Your task to perform on an android device: Go to Amazon Image 0: 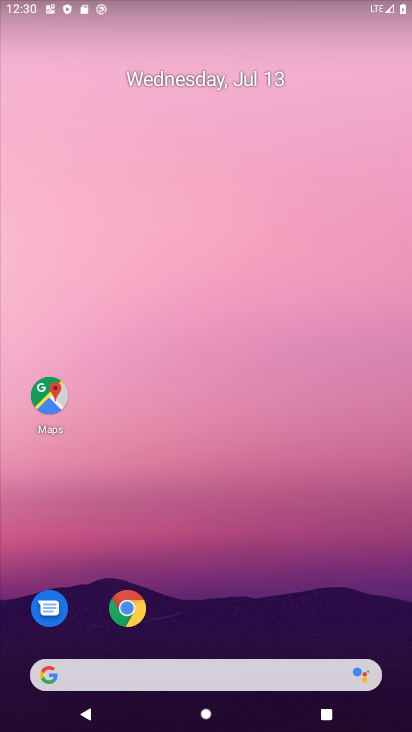
Step 0: click (123, 600)
Your task to perform on an android device: Go to Amazon Image 1: 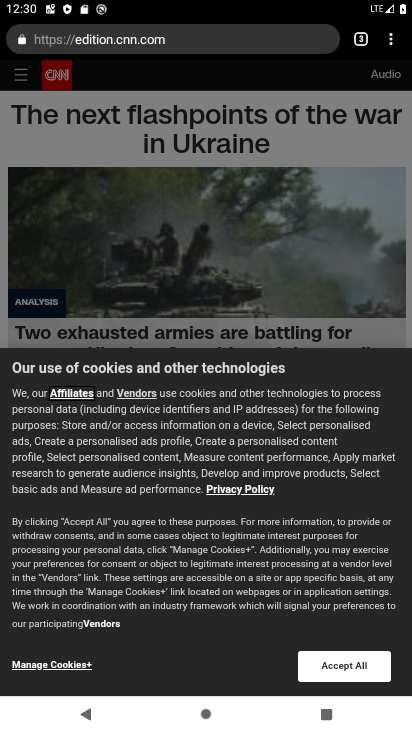
Step 1: click (363, 47)
Your task to perform on an android device: Go to Amazon Image 2: 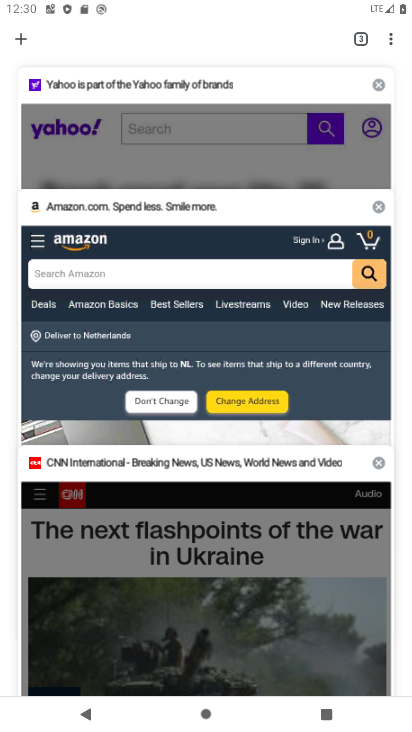
Step 2: click (157, 232)
Your task to perform on an android device: Go to Amazon Image 3: 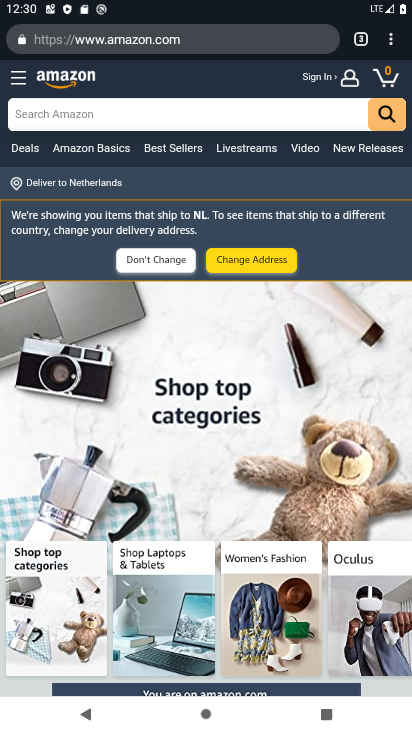
Step 3: task complete